Your task to perform on an android device: toggle sleep mode Image 0: 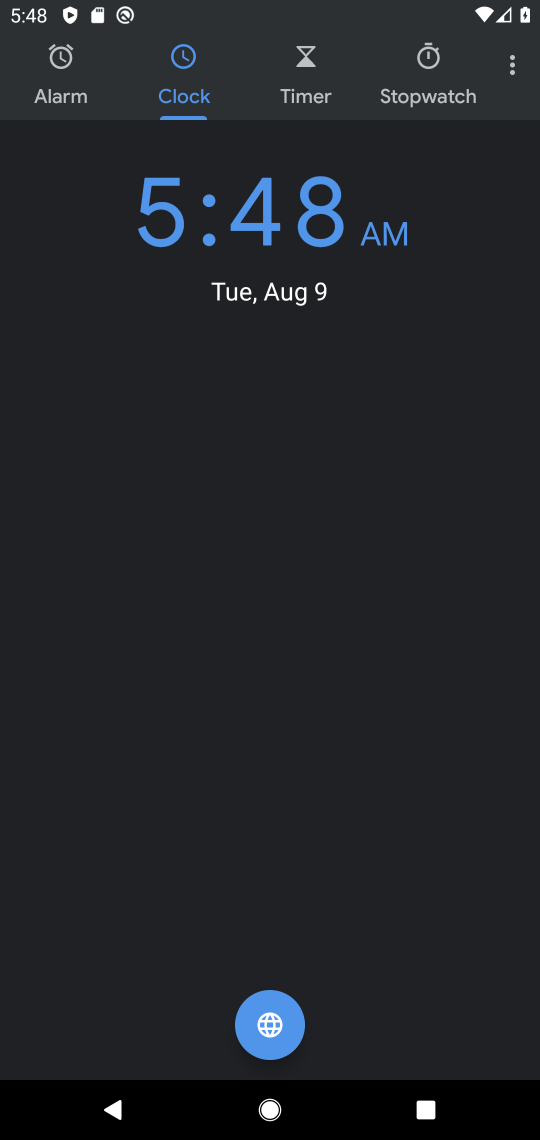
Step 0: press home button
Your task to perform on an android device: toggle sleep mode Image 1: 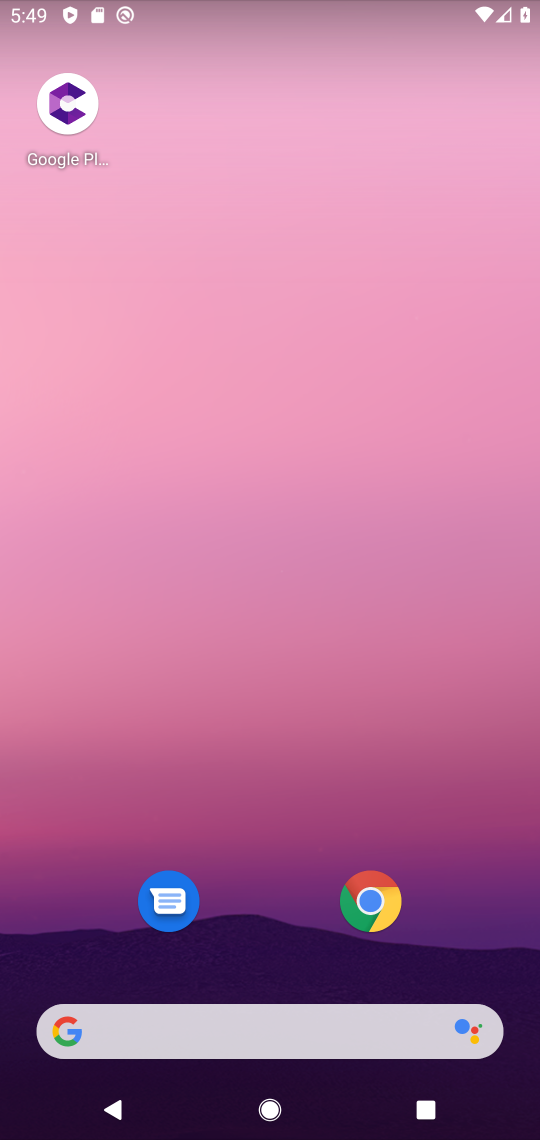
Step 1: click (307, 284)
Your task to perform on an android device: toggle sleep mode Image 2: 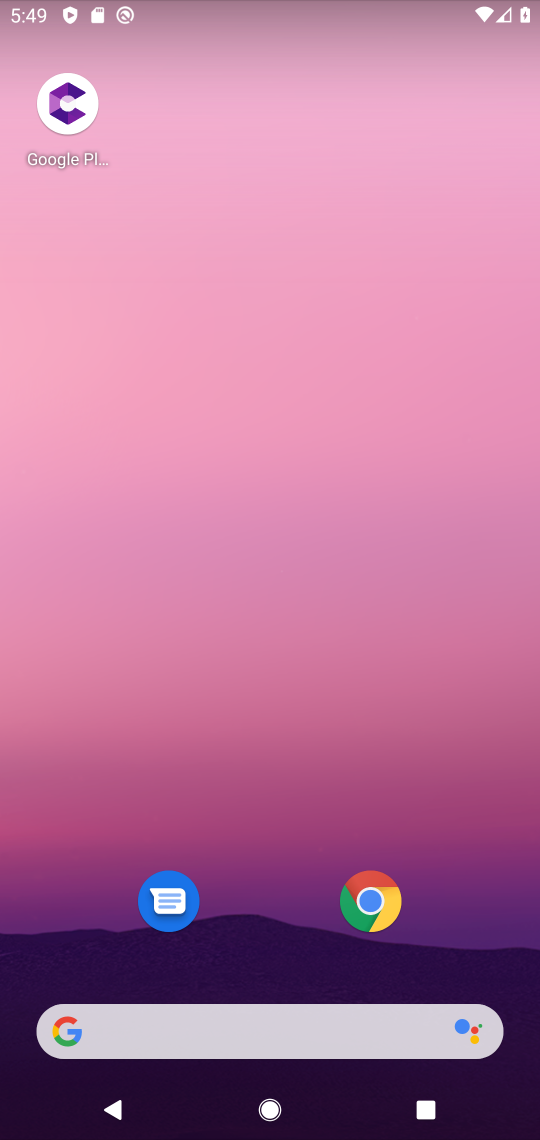
Step 2: drag from (184, 1131) to (370, 586)
Your task to perform on an android device: toggle sleep mode Image 3: 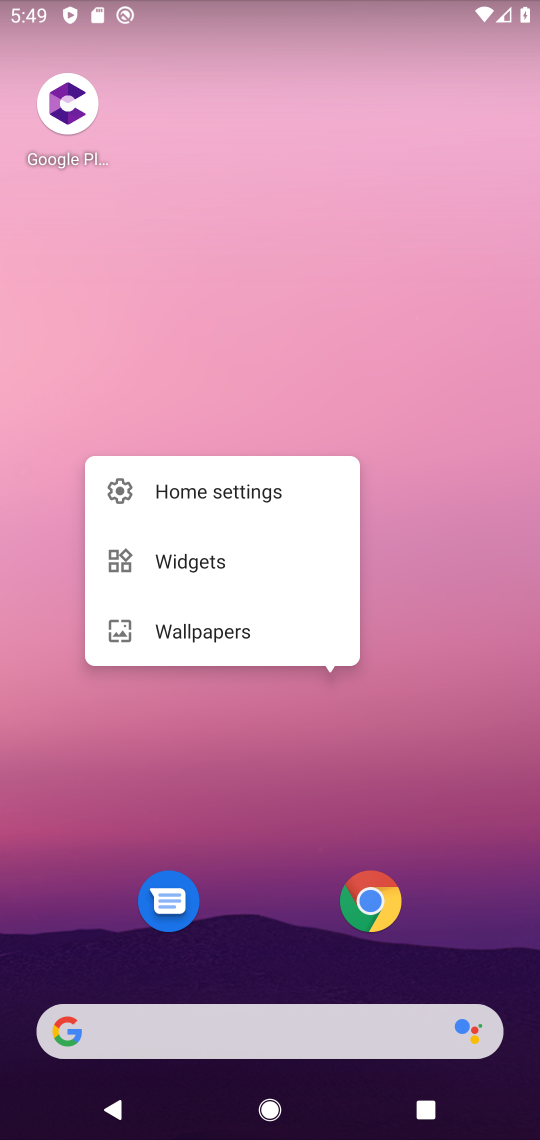
Step 3: drag from (431, 442) to (486, 274)
Your task to perform on an android device: toggle sleep mode Image 4: 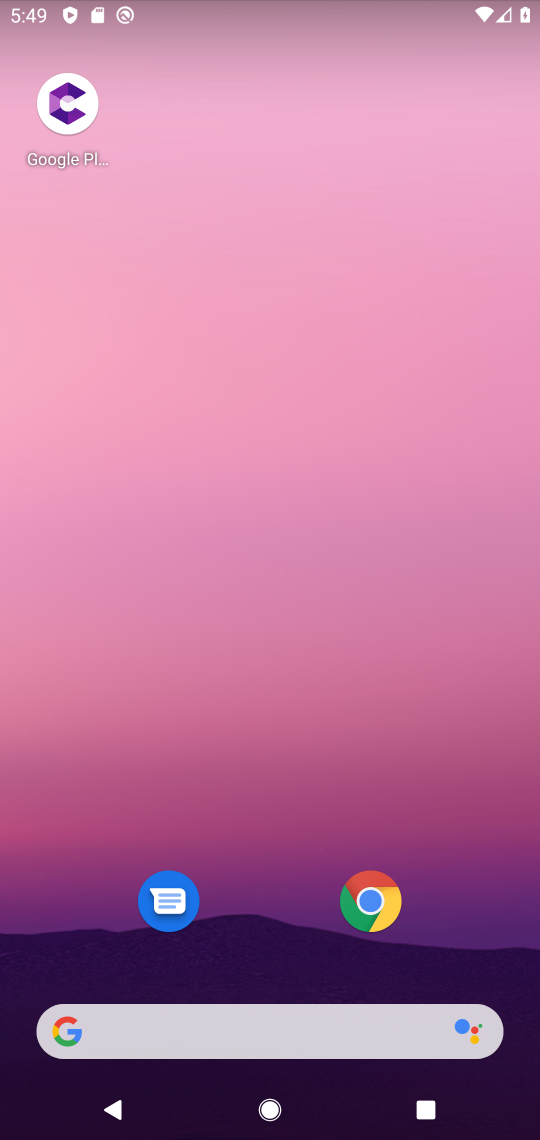
Step 4: drag from (346, 729) to (346, 284)
Your task to perform on an android device: toggle sleep mode Image 5: 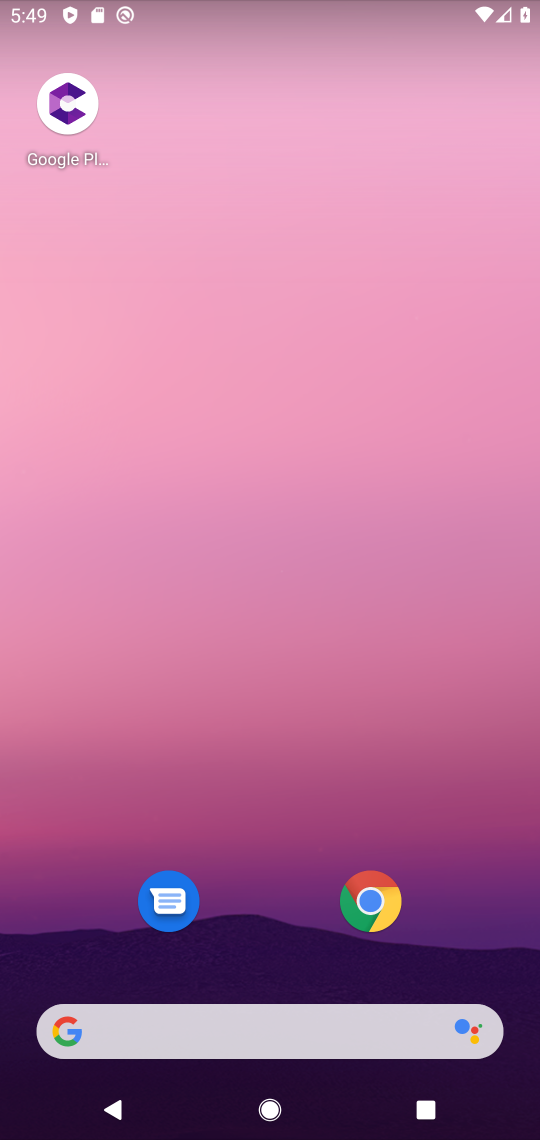
Step 5: drag from (354, 826) to (331, 192)
Your task to perform on an android device: toggle sleep mode Image 6: 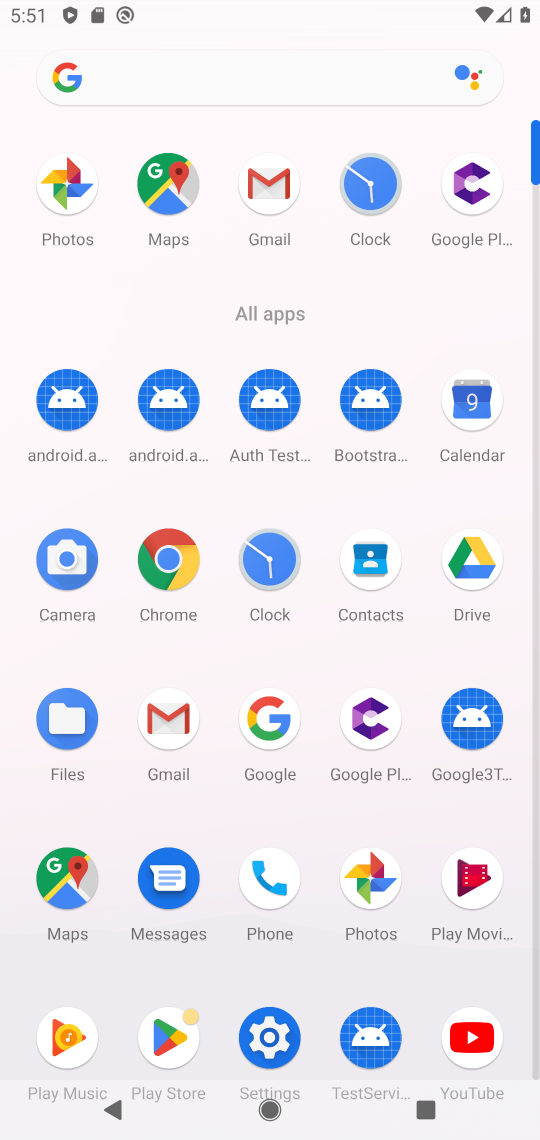
Step 6: click (290, 1036)
Your task to perform on an android device: toggle sleep mode Image 7: 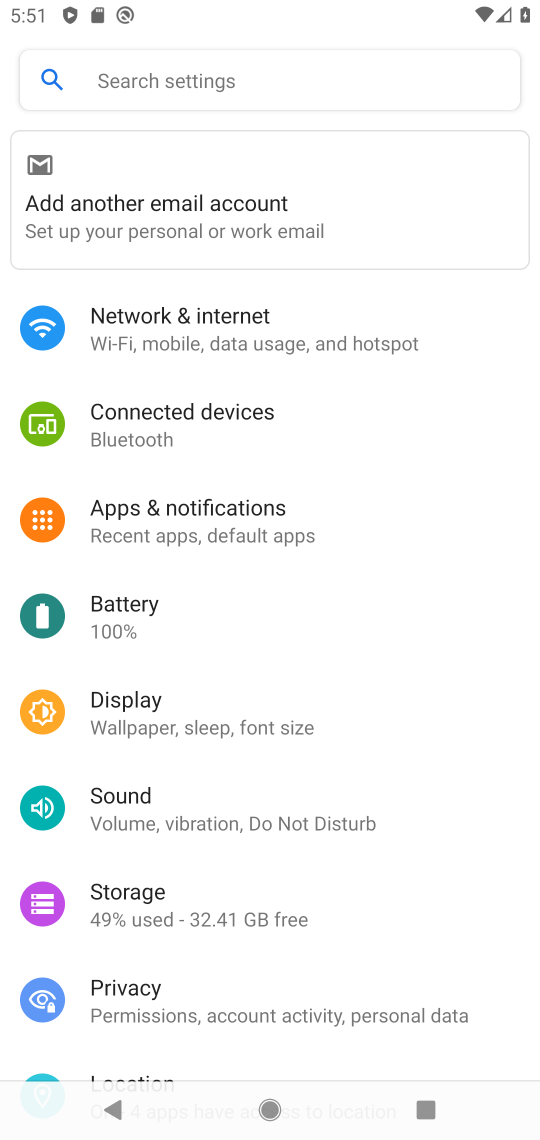
Step 7: click (307, 718)
Your task to perform on an android device: toggle sleep mode Image 8: 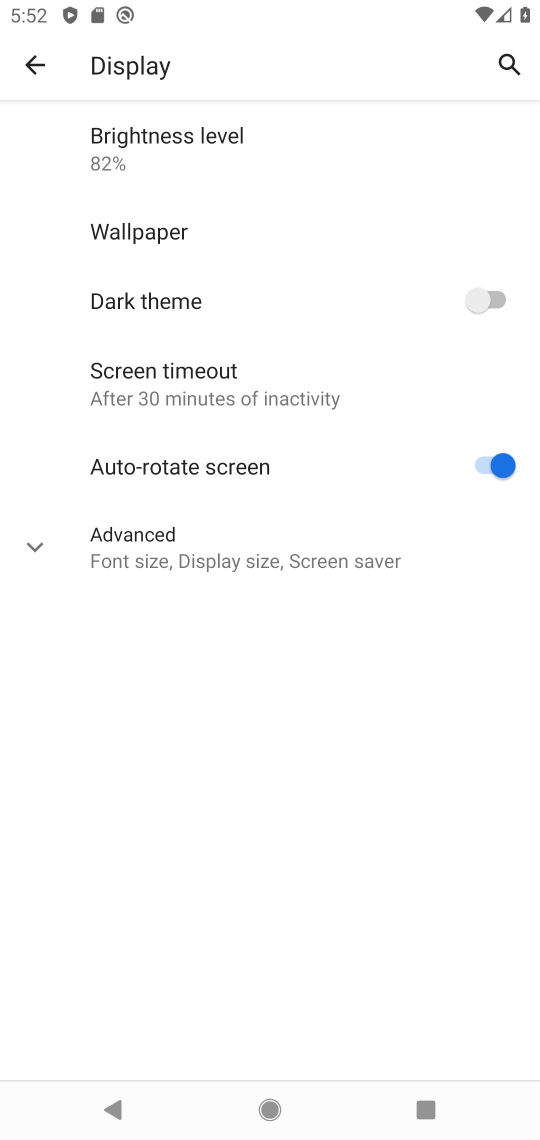
Step 8: task complete